Your task to perform on an android device: all mails in gmail Image 0: 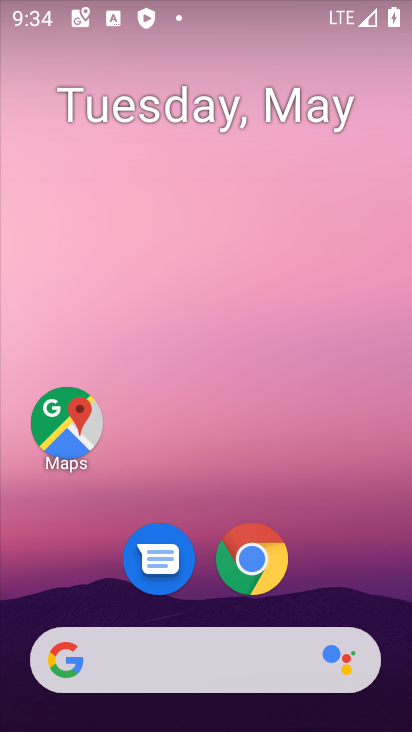
Step 0: drag from (203, 676) to (216, 238)
Your task to perform on an android device: all mails in gmail Image 1: 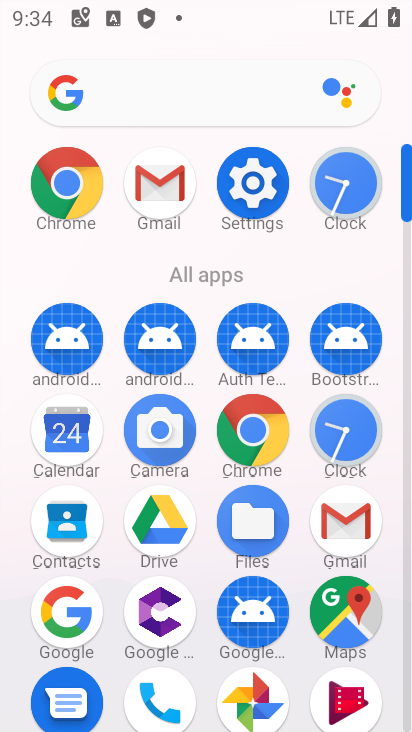
Step 1: click (166, 196)
Your task to perform on an android device: all mails in gmail Image 2: 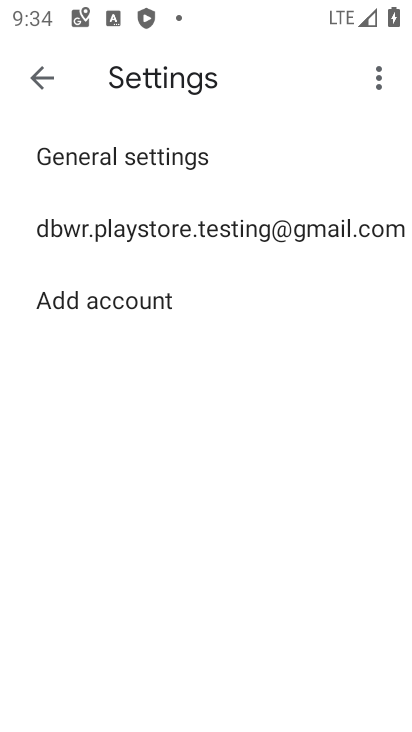
Step 2: click (45, 77)
Your task to perform on an android device: all mails in gmail Image 3: 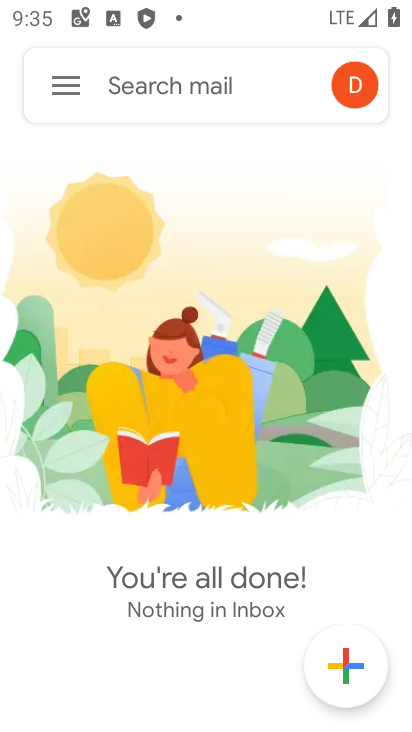
Step 3: click (63, 86)
Your task to perform on an android device: all mails in gmail Image 4: 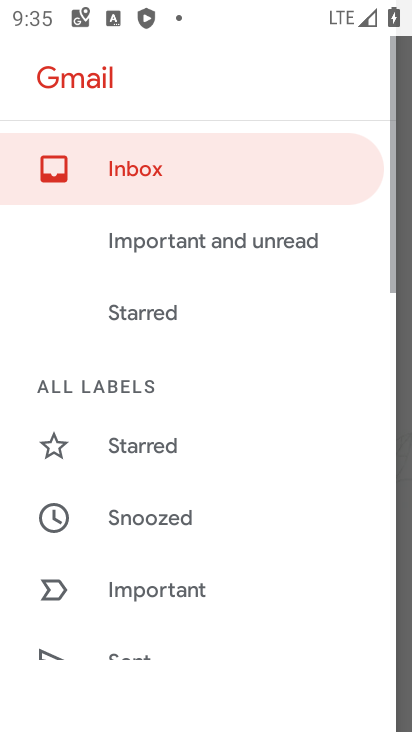
Step 4: drag from (149, 518) to (130, 325)
Your task to perform on an android device: all mails in gmail Image 5: 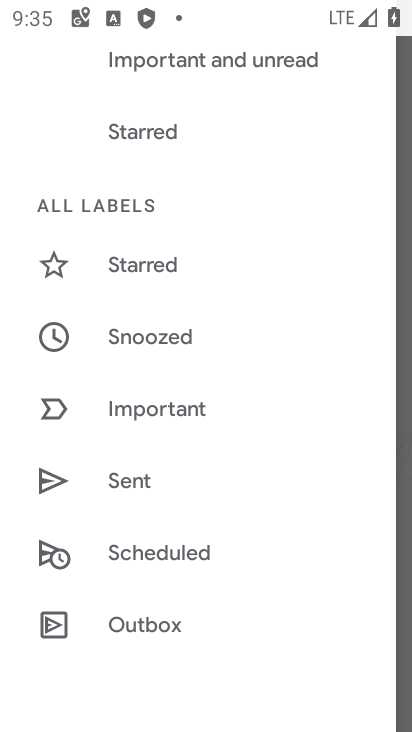
Step 5: drag from (173, 572) to (154, 103)
Your task to perform on an android device: all mails in gmail Image 6: 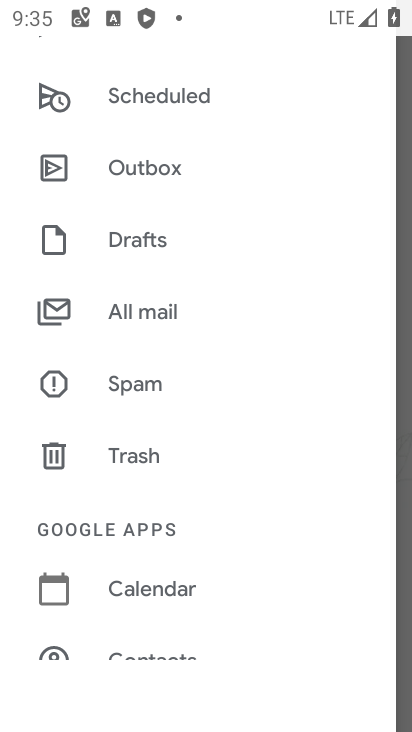
Step 6: click (149, 319)
Your task to perform on an android device: all mails in gmail Image 7: 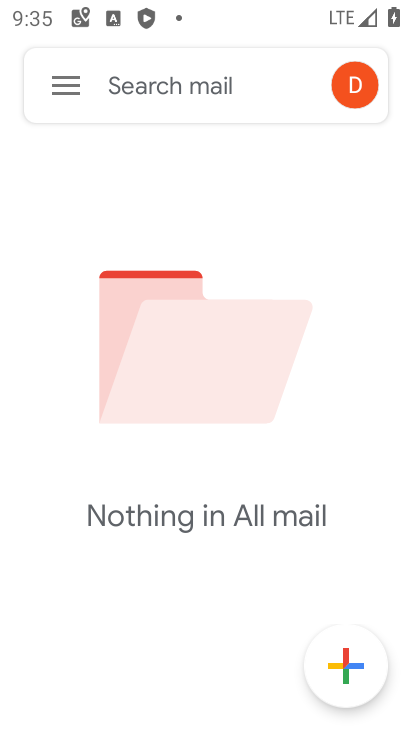
Step 7: task complete